Your task to perform on an android device: open wifi settings Image 0: 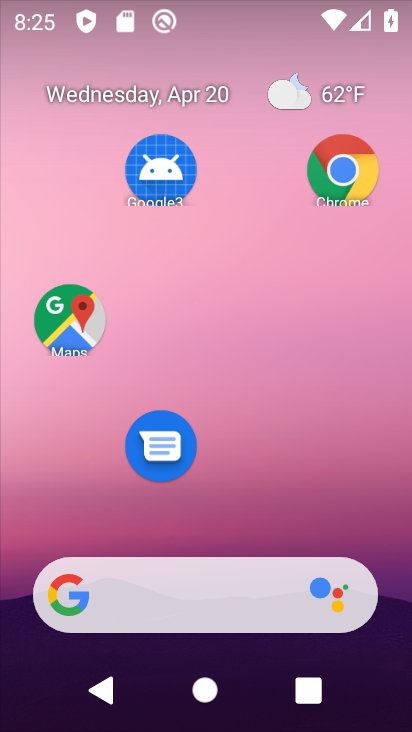
Step 0: drag from (239, 500) to (267, 26)
Your task to perform on an android device: open wifi settings Image 1: 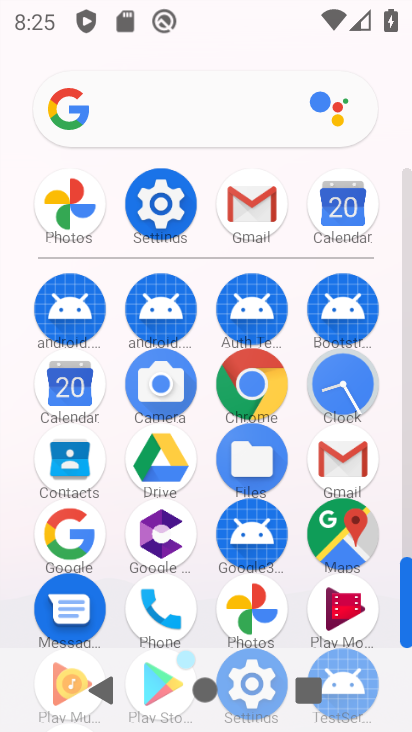
Step 1: click (162, 209)
Your task to perform on an android device: open wifi settings Image 2: 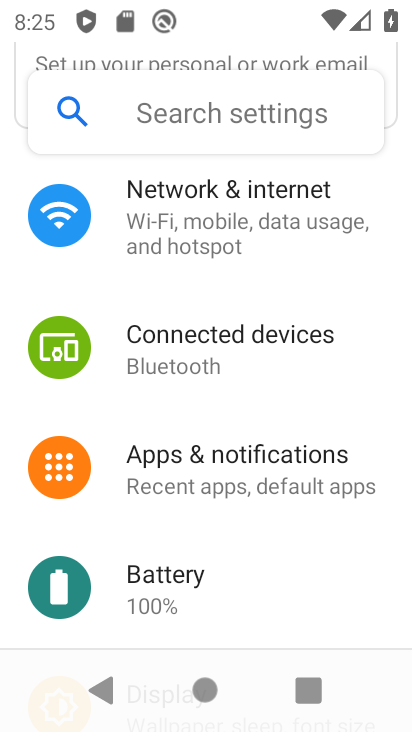
Step 2: drag from (232, 284) to (236, 681)
Your task to perform on an android device: open wifi settings Image 3: 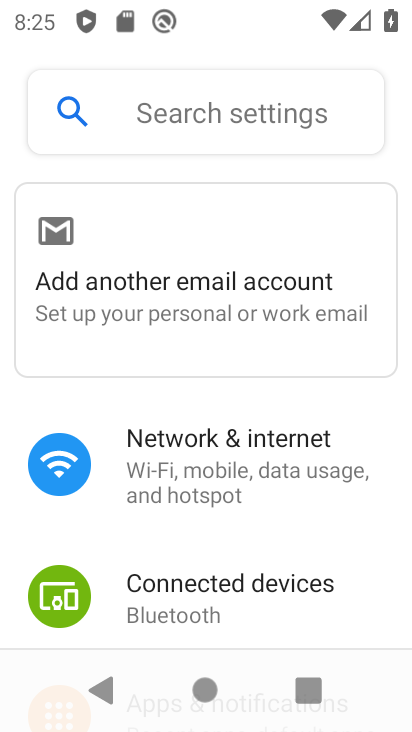
Step 3: click (169, 457)
Your task to perform on an android device: open wifi settings Image 4: 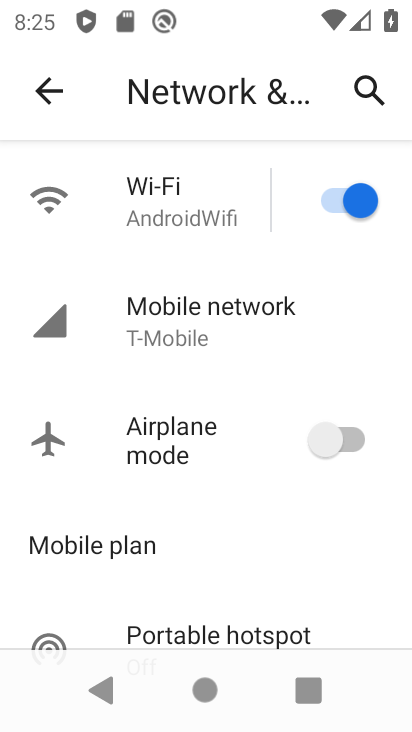
Step 4: click (145, 186)
Your task to perform on an android device: open wifi settings Image 5: 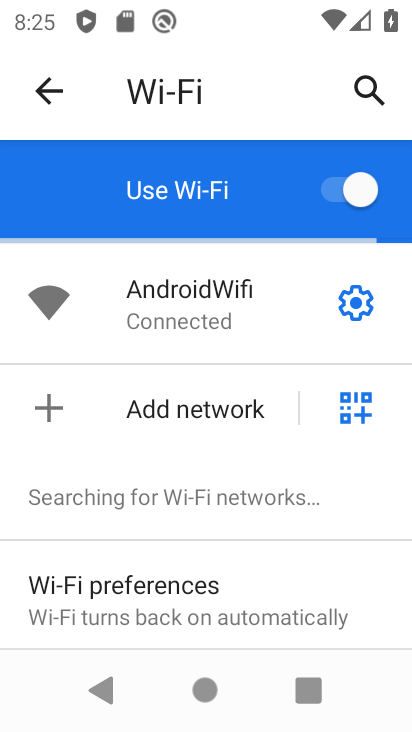
Step 5: task complete